Your task to perform on an android device: Check the news Image 0: 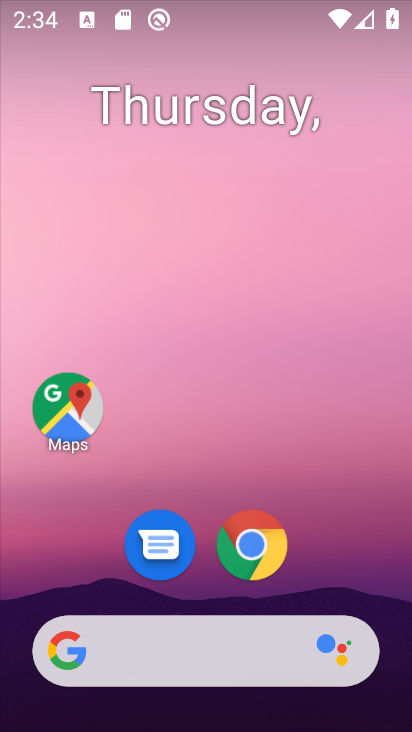
Step 0: click (219, 669)
Your task to perform on an android device: Check the news Image 1: 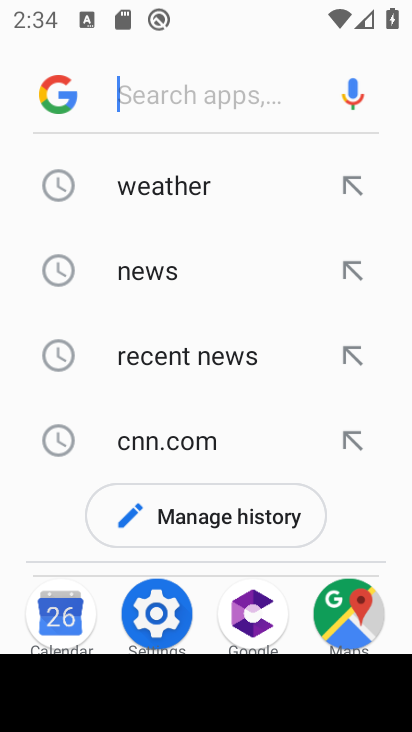
Step 1: click (204, 287)
Your task to perform on an android device: Check the news Image 2: 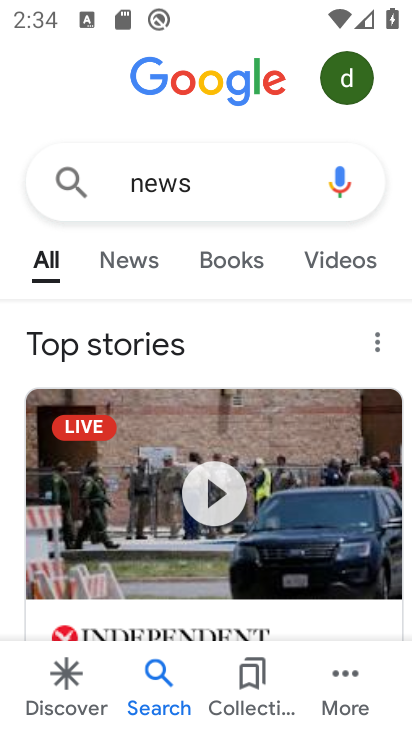
Step 2: task complete